Your task to perform on an android device: Search for Italian restaurants on Maps Image 0: 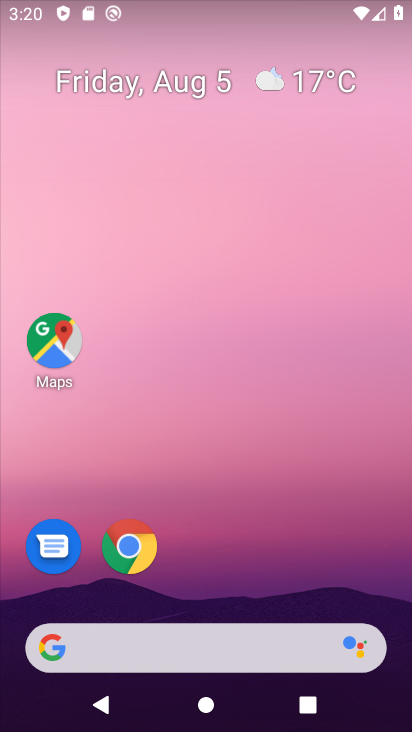
Step 0: press home button
Your task to perform on an android device: Search for Italian restaurants on Maps Image 1: 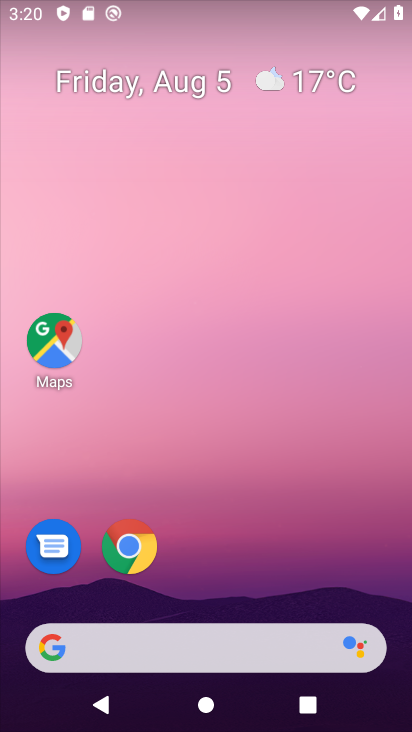
Step 1: drag from (345, 569) to (336, 133)
Your task to perform on an android device: Search for Italian restaurants on Maps Image 2: 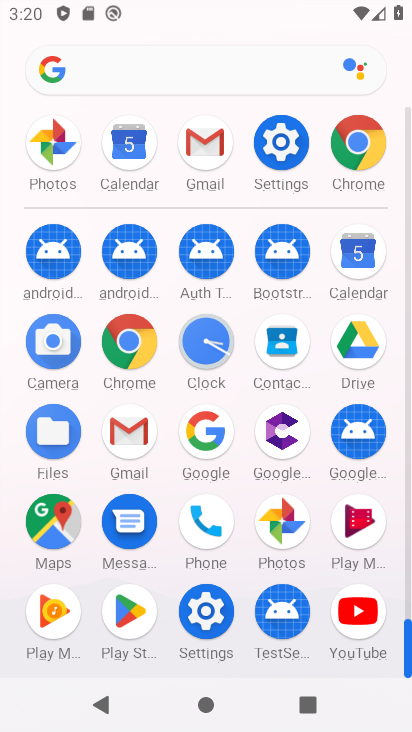
Step 2: click (52, 536)
Your task to perform on an android device: Search for Italian restaurants on Maps Image 3: 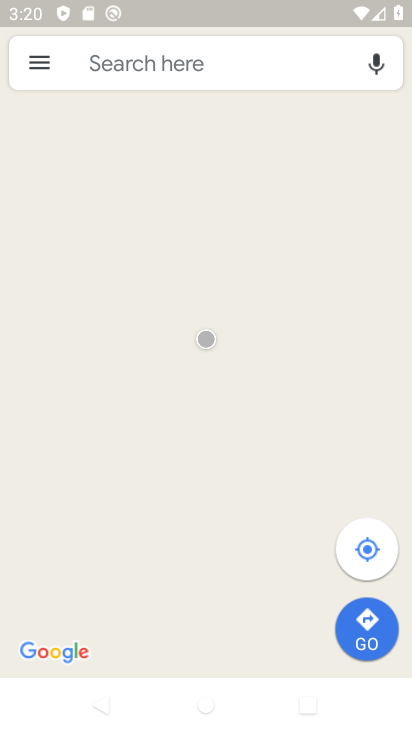
Step 3: click (261, 62)
Your task to perform on an android device: Search for Italian restaurants on Maps Image 4: 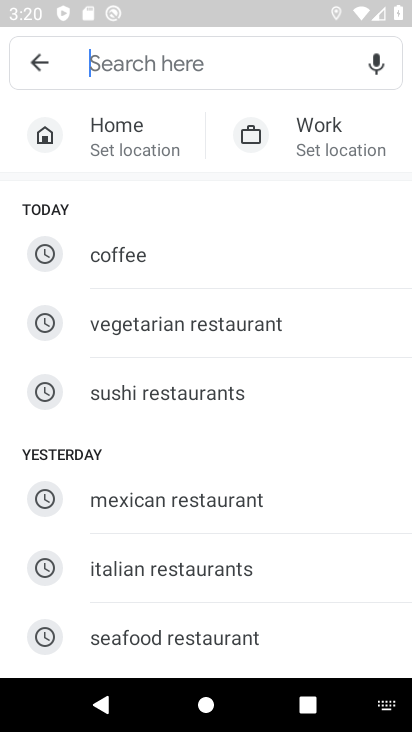
Step 4: type "italian restaurants"
Your task to perform on an android device: Search for Italian restaurants on Maps Image 5: 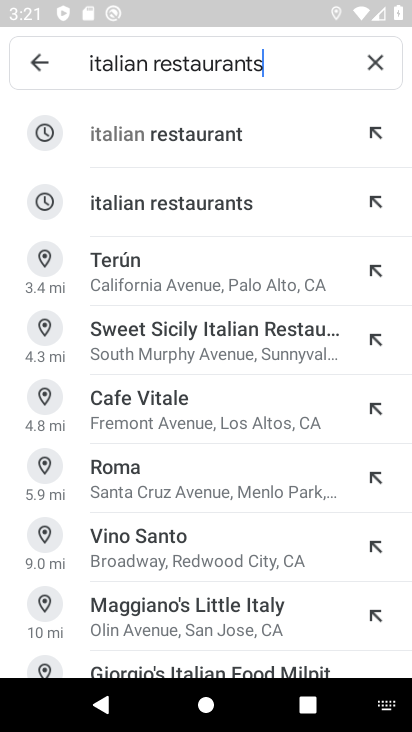
Step 5: click (236, 138)
Your task to perform on an android device: Search for Italian restaurants on Maps Image 6: 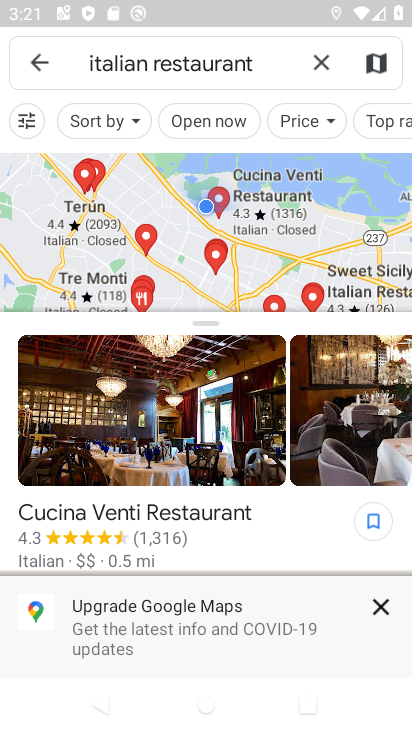
Step 6: task complete